Your task to perform on an android device: Search for sushi restaurants on Maps Image 0: 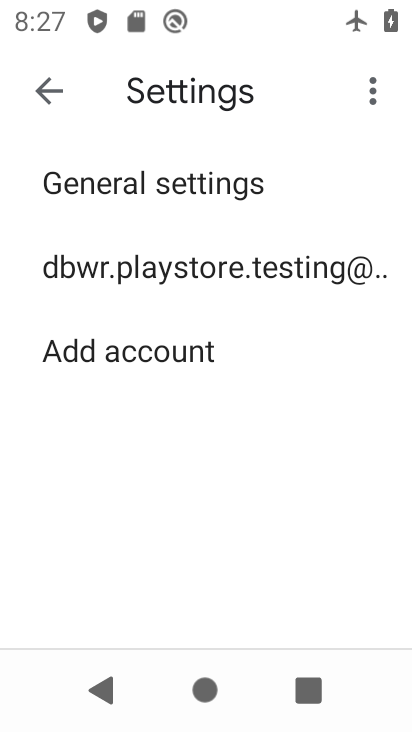
Step 0: press back button
Your task to perform on an android device: Search for sushi restaurants on Maps Image 1: 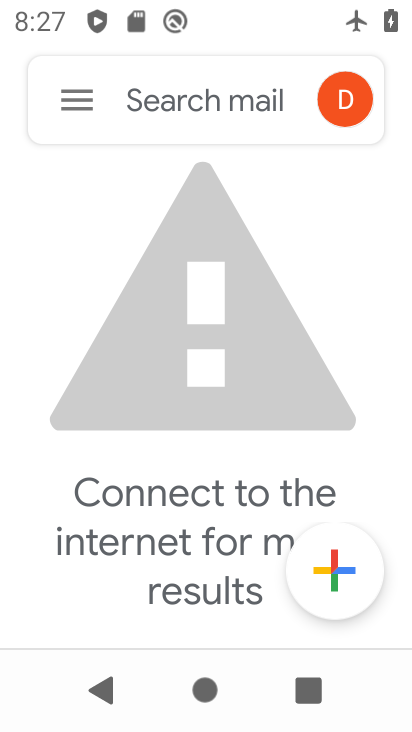
Step 1: press back button
Your task to perform on an android device: Search for sushi restaurants on Maps Image 2: 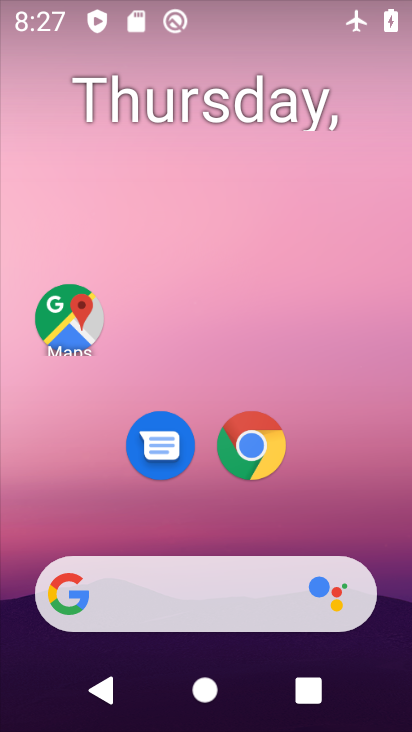
Step 2: click (83, 339)
Your task to perform on an android device: Search for sushi restaurants on Maps Image 3: 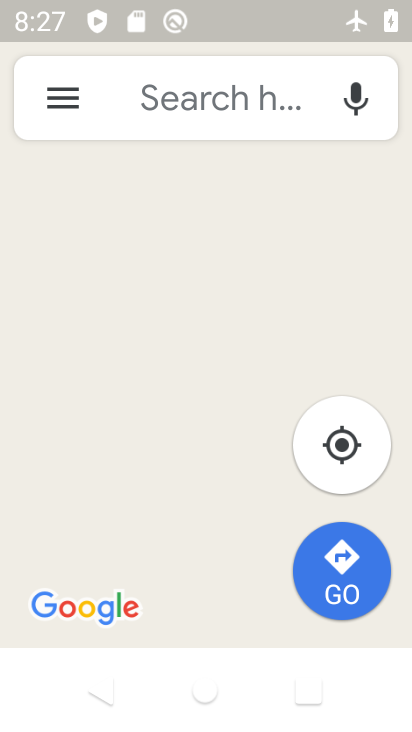
Step 3: click (171, 76)
Your task to perform on an android device: Search for sushi restaurants on Maps Image 4: 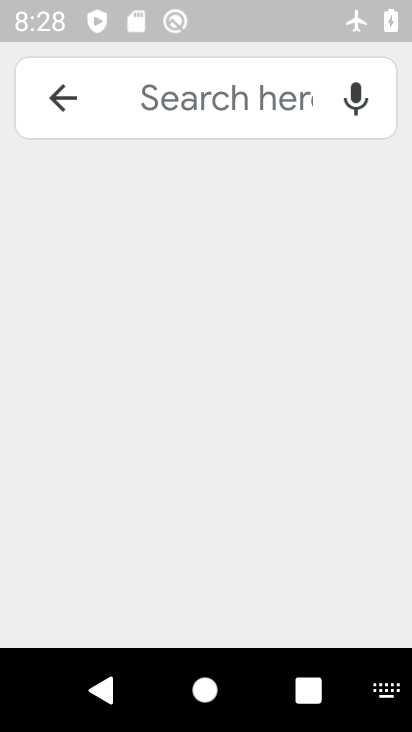
Step 4: click (165, 99)
Your task to perform on an android device: Search for sushi restaurants on Maps Image 5: 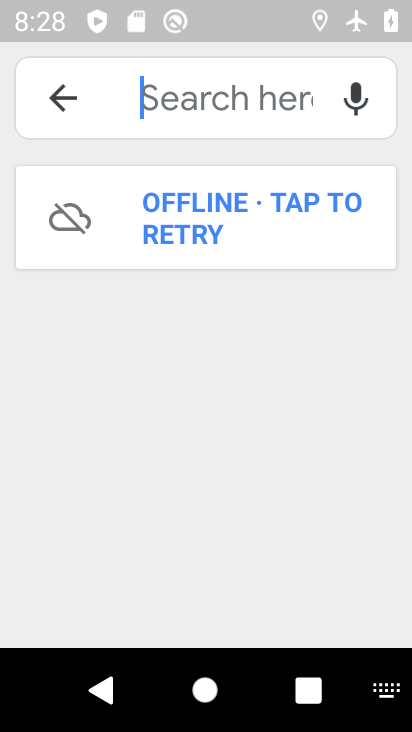
Step 5: type "sushi restaurants"
Your task to perform on an android device: Search for sushi restaurants on Maps Image 6: 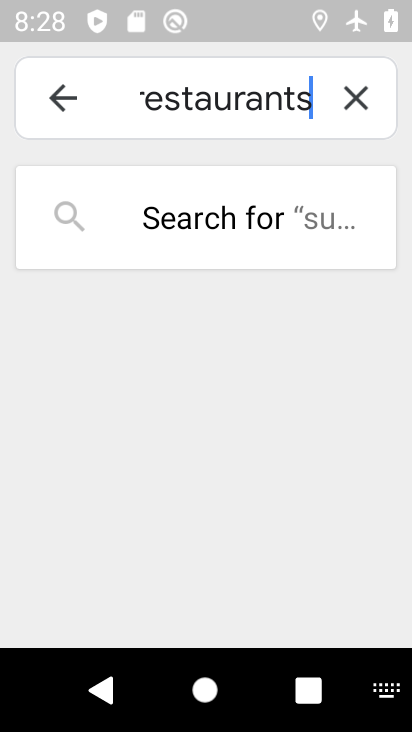
Step 6: drag from (217, 22) to (215, 536)
Your task to perform on an android device: Search for sushi restaurants on Maps Image 7: 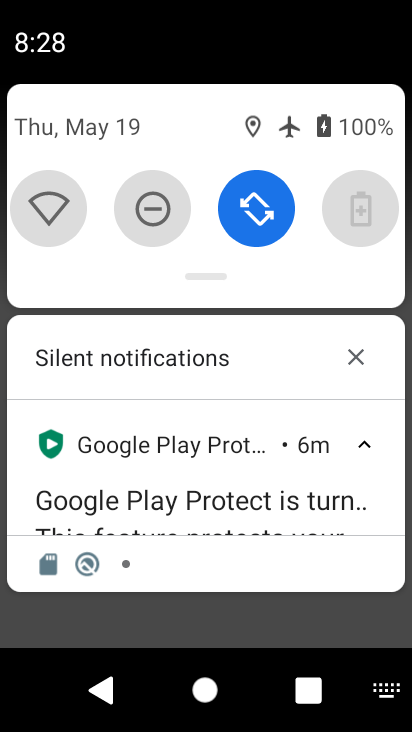
Step 7: drag from (183, 274) to (191, 589)
Your task to perform on an android device: Search for sushi restaurants on Maps Image 8: 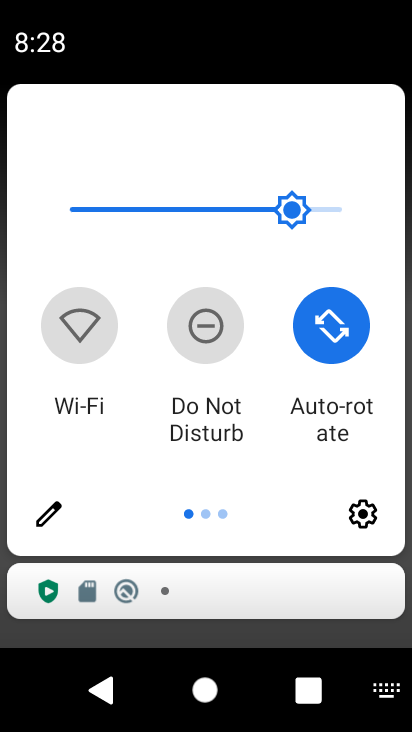
Step 8: drag from (358, 326) to (20, 301)
Your task to perform on an android device: Search for sushi restaurants on Maps Image 9: 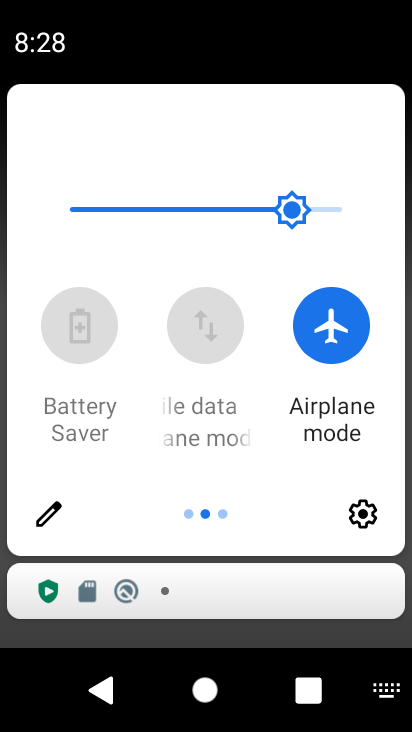
Step 9: click (310, 328)
Your task to perform on an android device: Search for sushi restaurants on Maps Image 10: 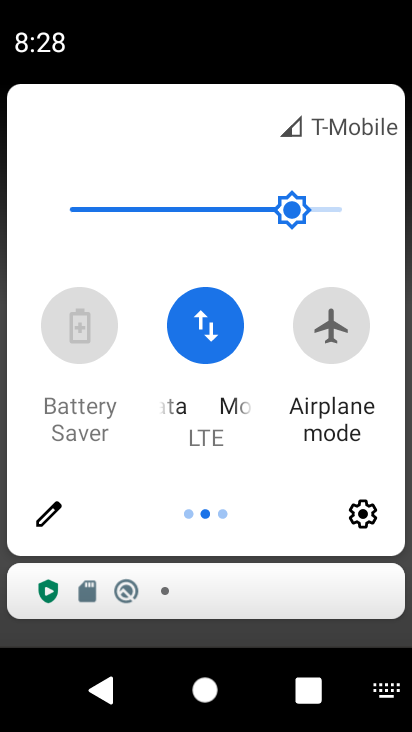
Step 10: task complete